Your task to perform on an android device: Do I have any events this weekend? Image 0: 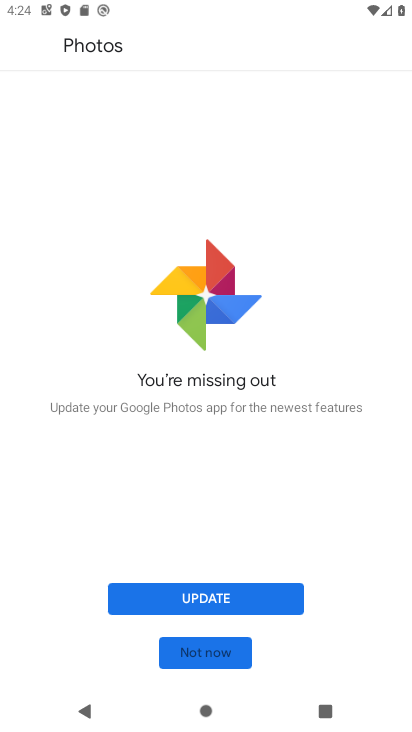
Step 0: press home button
Your task to perform on an android device: Do I have any events this weekend? Image 1: 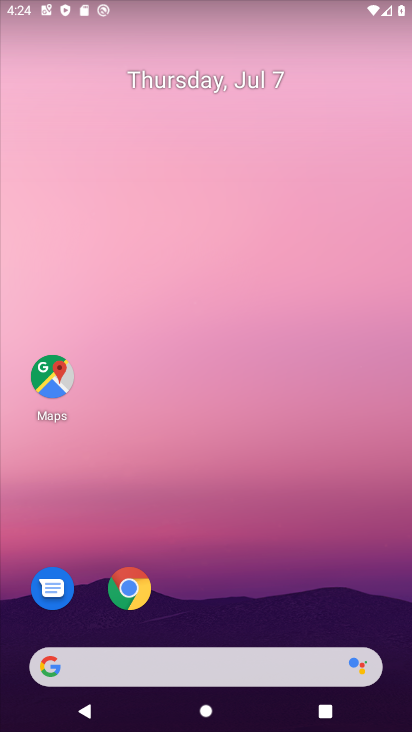
Step 1: drag from (81, 680) to (256, 90)
Your task to perform on an android device: Do I have any events this weekend? Image 2: 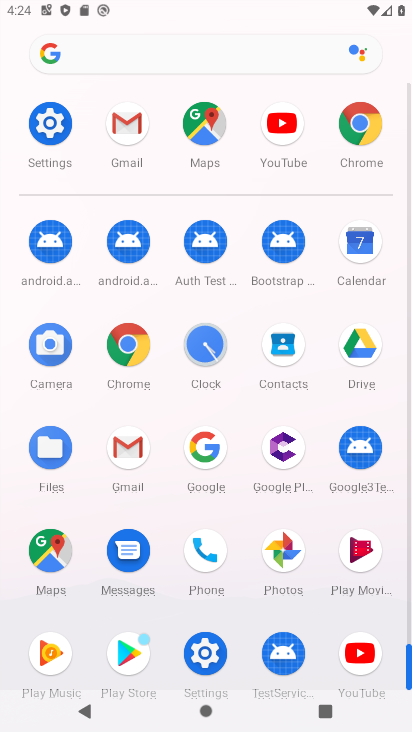
Step 2: click (357, 251)
Your task to perform on an android device: Do I have any events this weekend? Image 3: 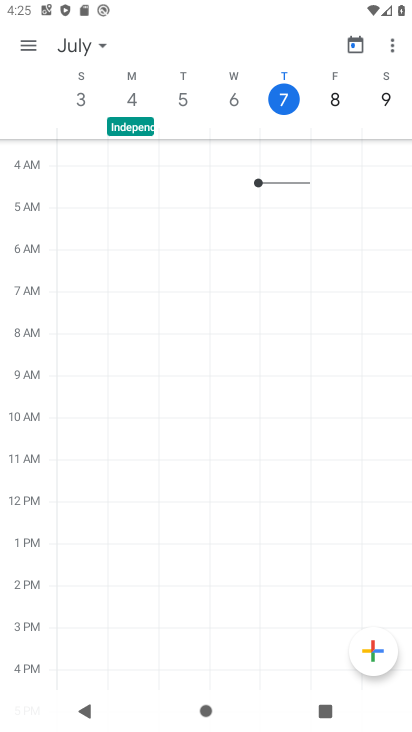
Step 3: click (101, 46)
Your task to perform on an android device: Do I have any events this weekend? Image 4: 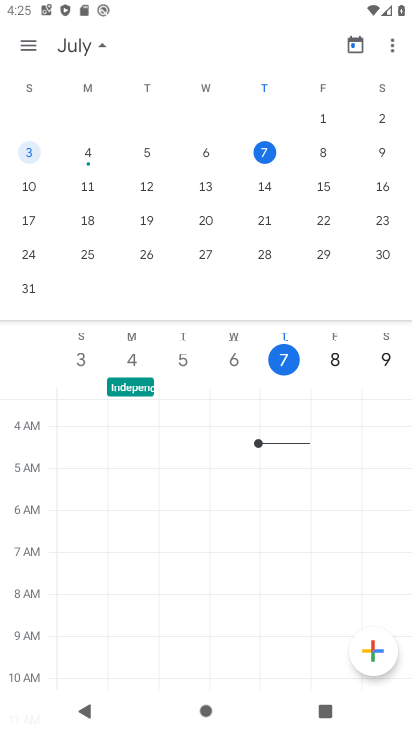
Step 4: task complete